Your task to perform on an android device: Open display settings Image 0: 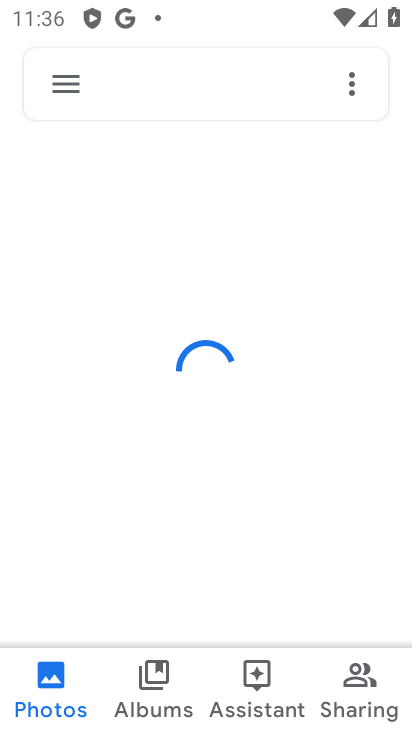
Step 0: press home button
Your task to perform on an android device: Open display settings Image 1: 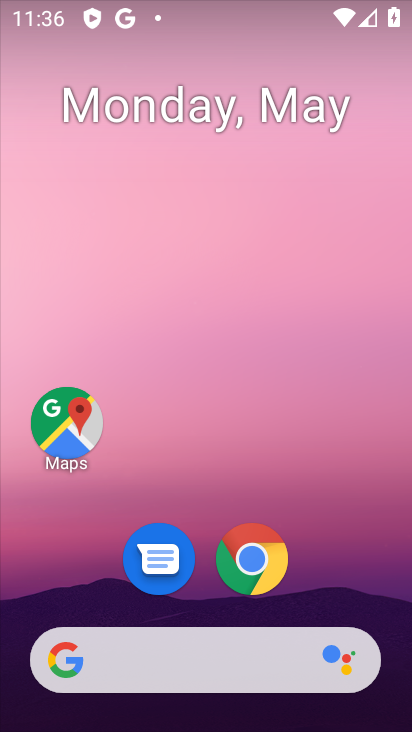
Step 1: drag from (376, 545) to (317, 111)
Your task to perform on an android device: Open display settings Image 2: 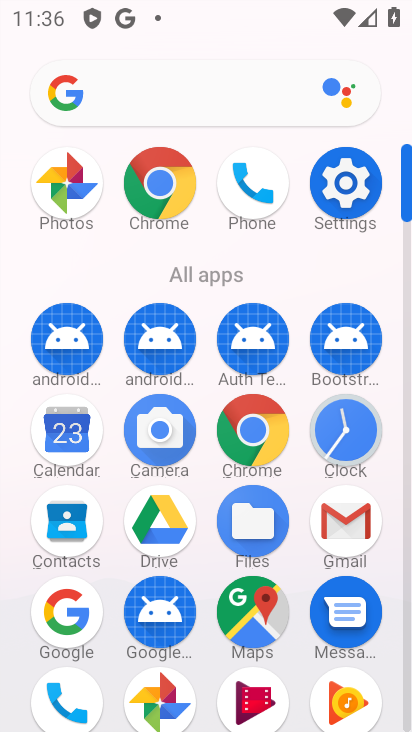
Step 2: click (353, 224)
Your task to perform on an android device: Open display settings Image 3: 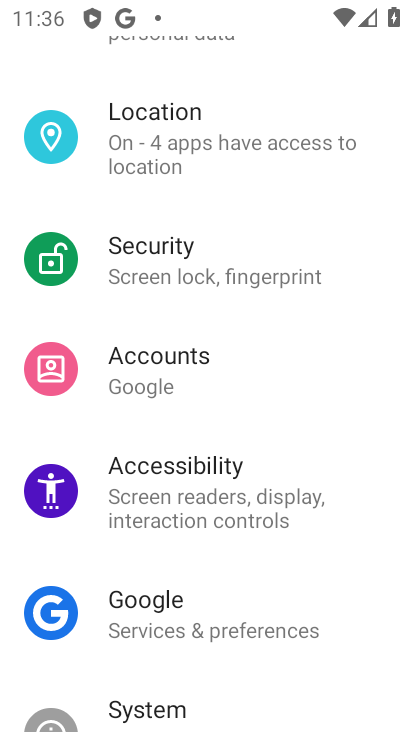
Step 3: drag from (217, 601) to (300, 711)
Your task to perform on an android device: Open display settings Image 4: 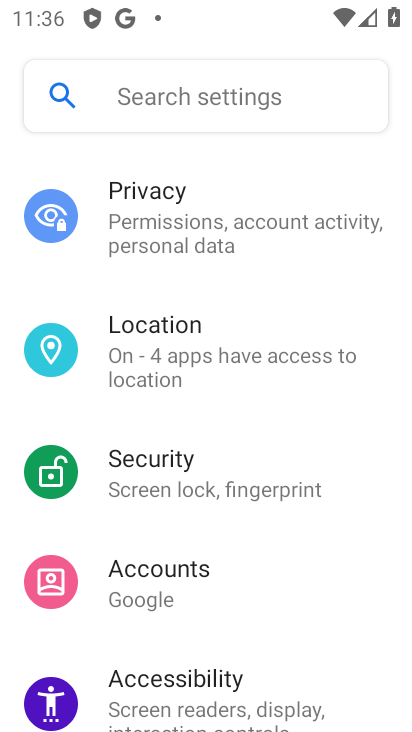
Step 4: drag from (288, 190) to (326, 643)
Your task to perform on an android device: Open display settings Image 5: 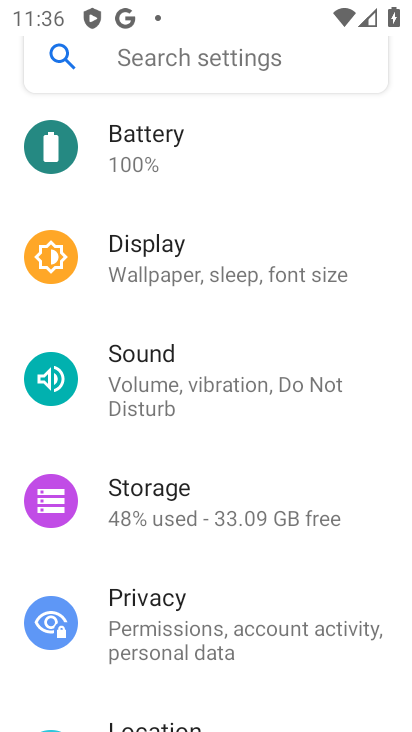
Step 5: click (260, 292)
Your task to perform on an android device: Open display settings Image 6: 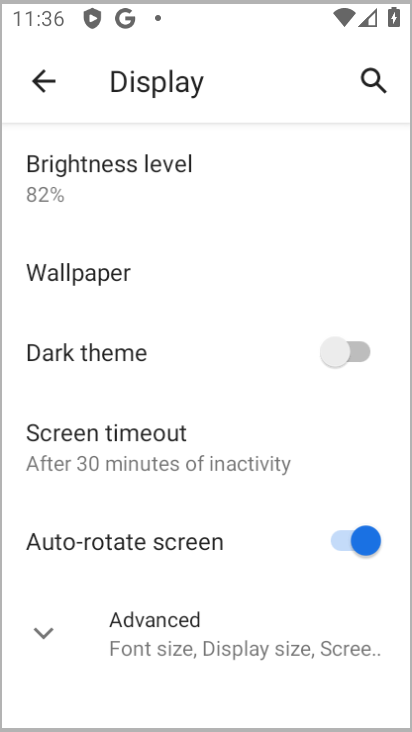
Step 6: task complete